Your task to perform on an android device: Is it going to rain this weekend? Image 0: 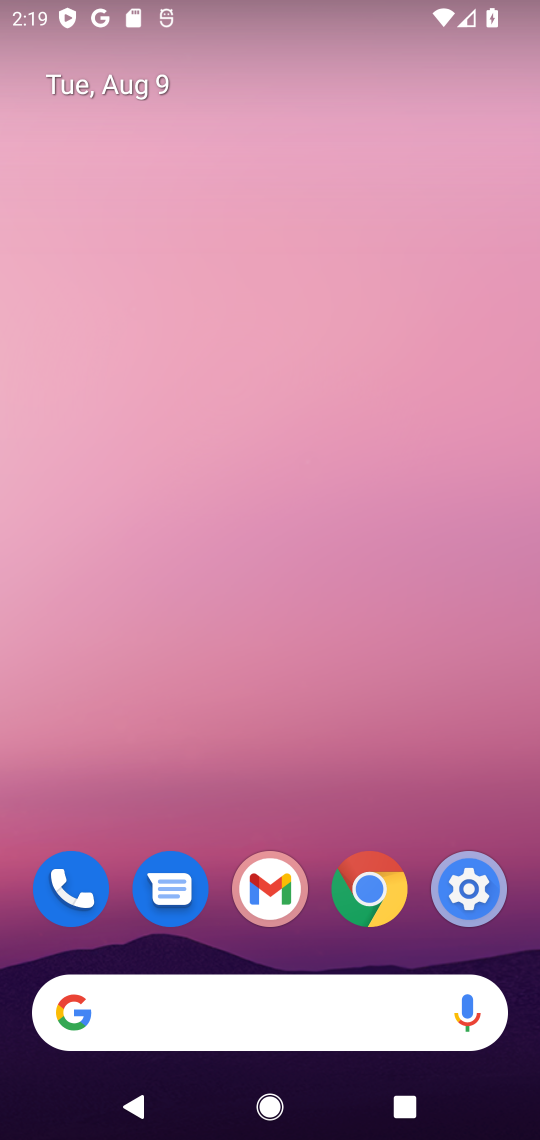
Step 0: click (242, 1025)
Your task to perform on an android device: Is it going to rain this weekend? Image 1: 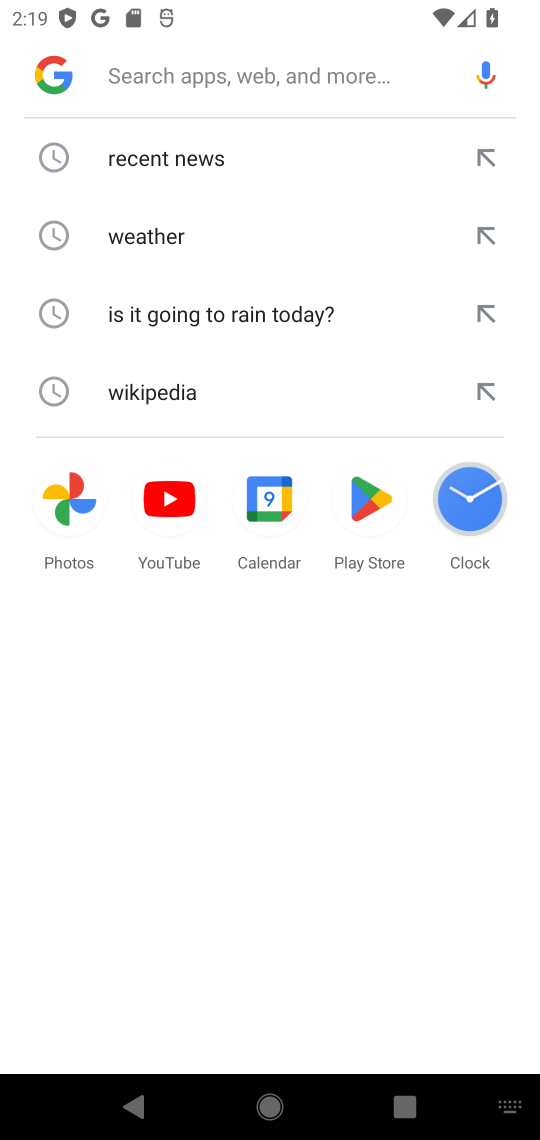
Step 1: click (237, 231)
Your task to perform on an android device: Is it going to rain this weekend? Image 2: 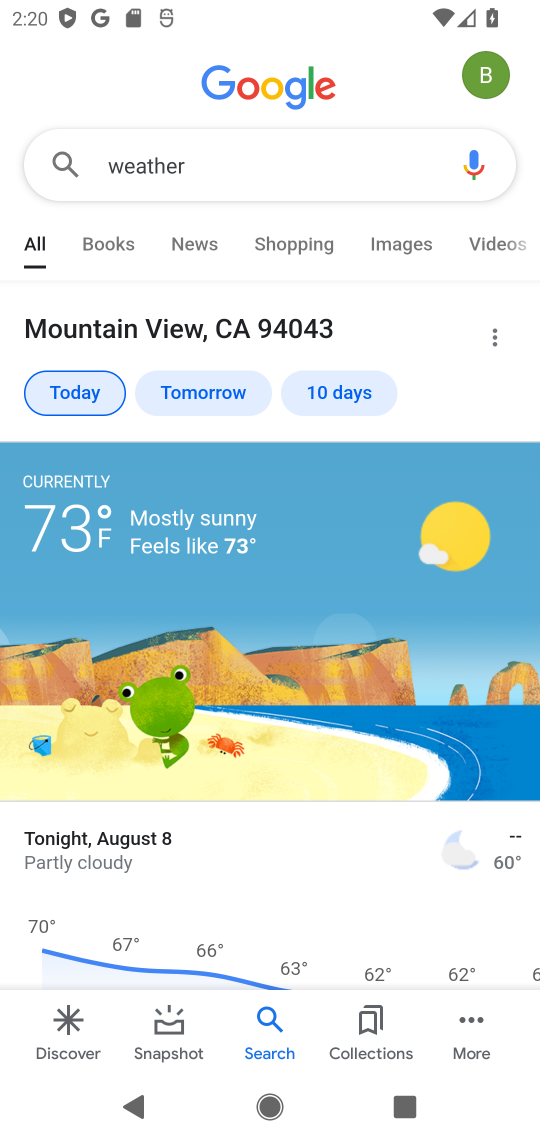
Step 2: click (321, 390)
Your task to perform on an android device: Is it going to rain this weekend? Image 3: 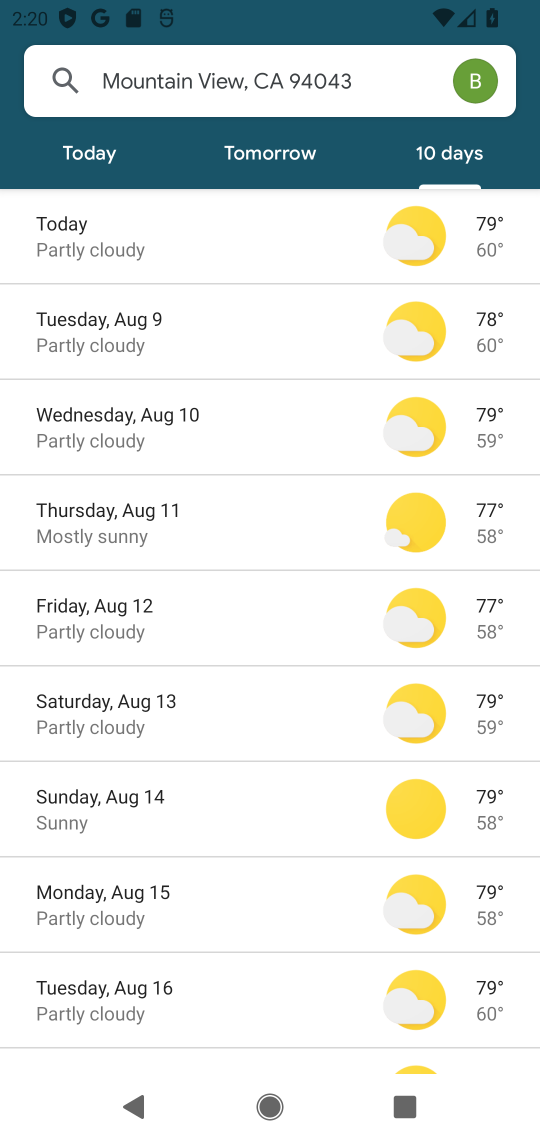
Step 3: click (176, 702)
Your task to perform on an android device: Is it going to rain this weekend? Image 4: 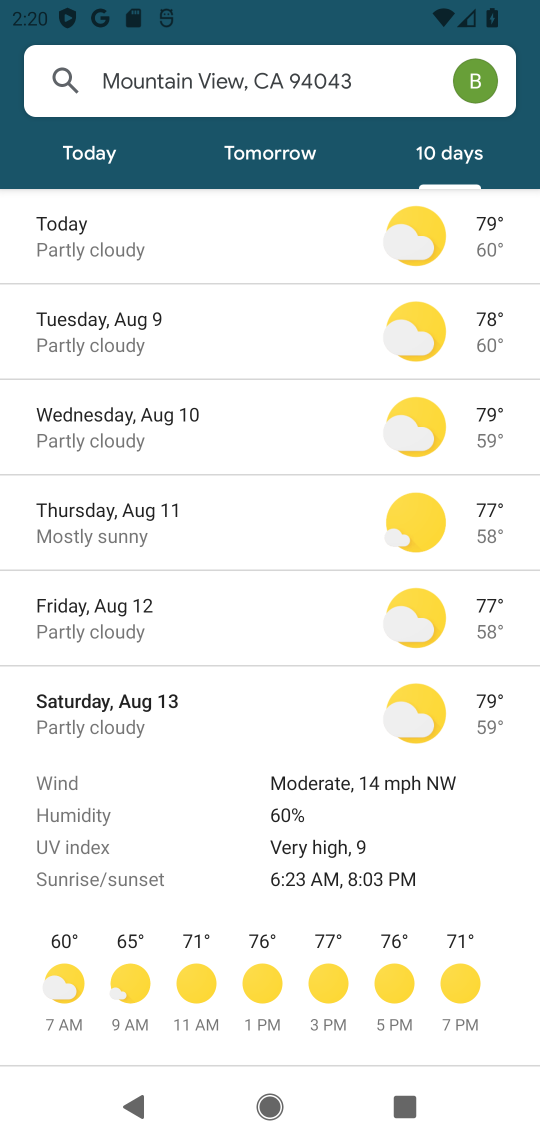
Step 4: task complete